Your task to perform on an android device: toggle pop-ups in chrome Image 0: 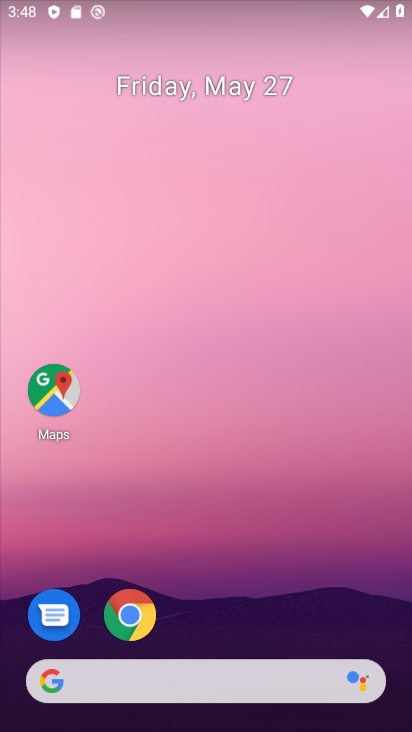
Step 0: click (136, 624)
Your task to perform on an android device: toggle pop-ups in chrome Image 1: 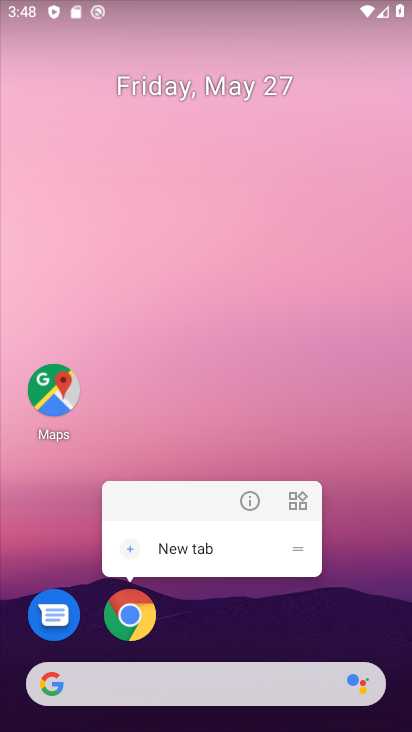
Step 1: click (136, 624)
Your task to perform on an android device: toggle pop-ups in chrome Image 2: 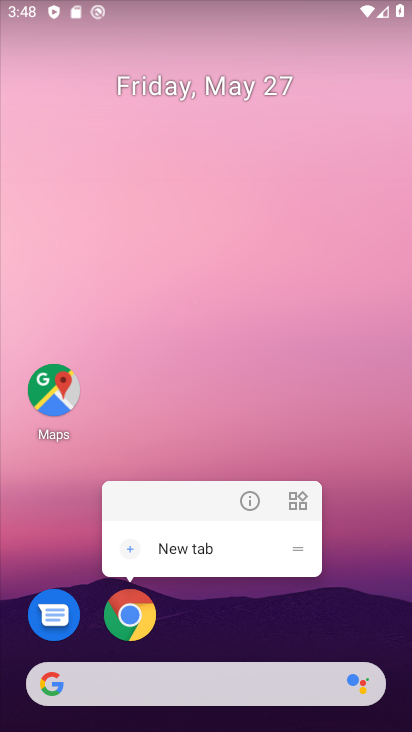
Step 2: click (136, 622)
Your task to perform on an android device: toggle pop-ups in chrome Image 3: 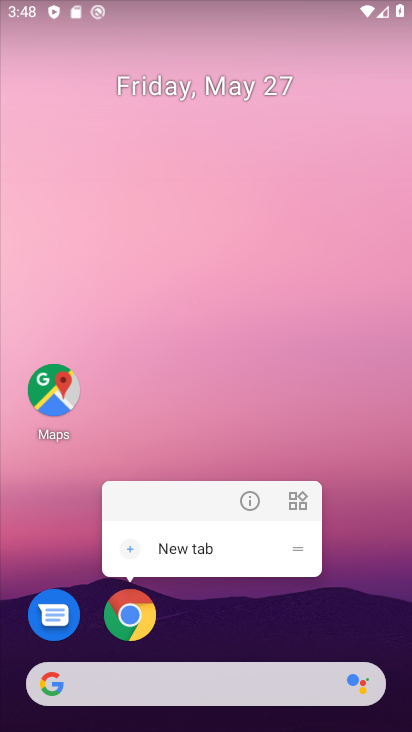
Step 3: click (127, 611)
Your task to perform on an android device: toggle pop-ups in chrome Image 4: 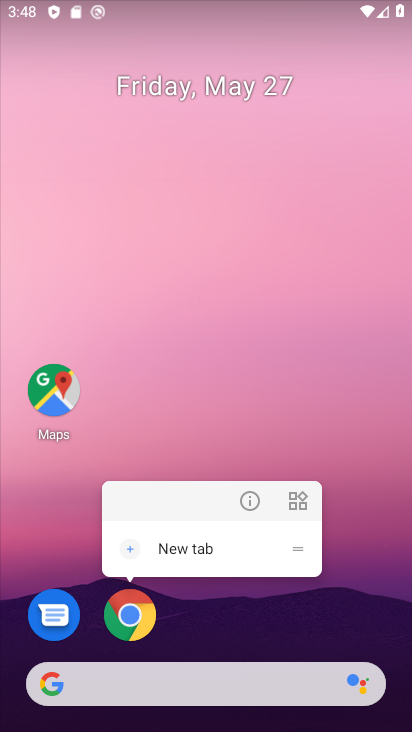
Step 4: click (119, 621)
Your task to perform on an android device: toggle pop-ups in chrome Image 5: 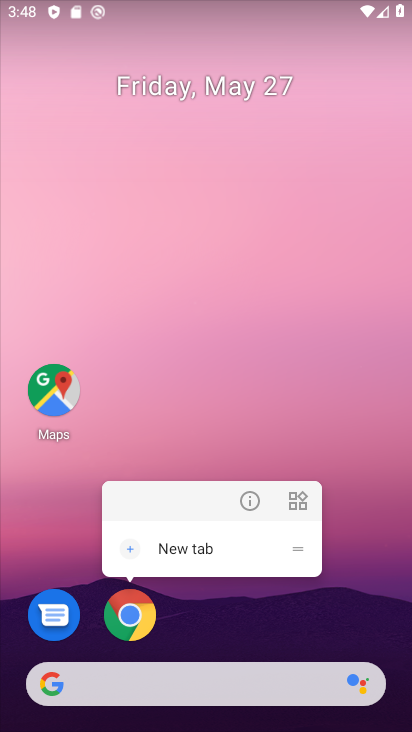
Step 5: click (127, 612)
Your task to perform on an android device: toggle pop-ups in chrome Image 6: 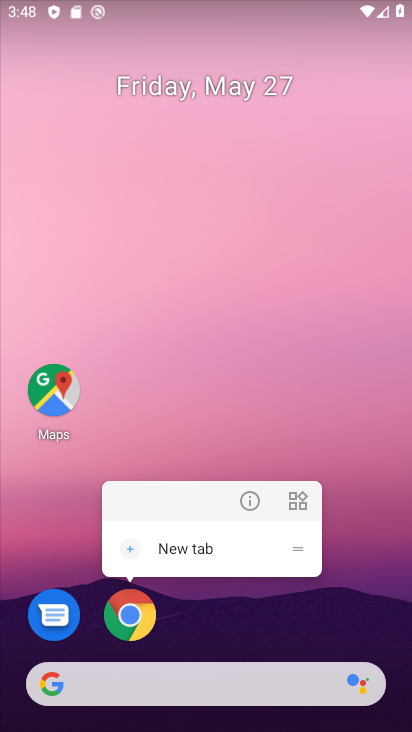
Step 6: click (132, 611)
Your task to perform on an android device: toggle pop-ups in chrome Image 7: 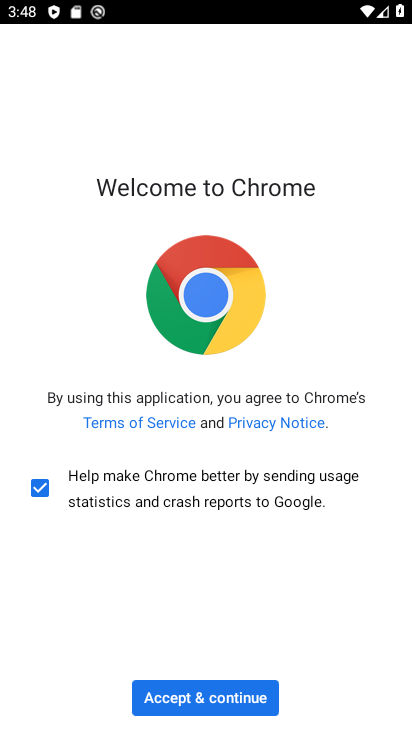
Step 7: click (235, 689)
Your task to perform on an android device: toggle pop-ups in chrome Image 8: 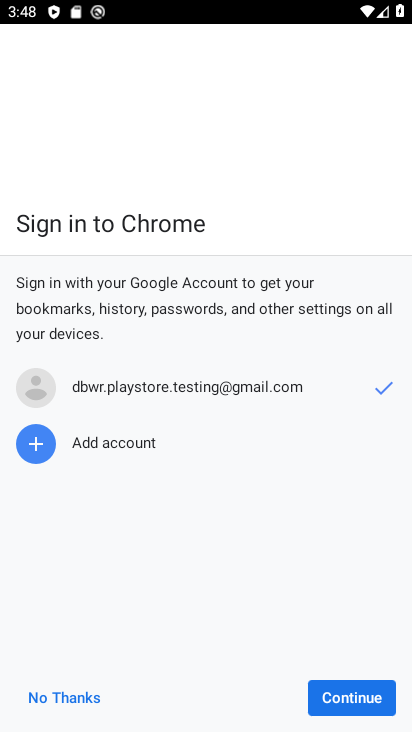
Step 8: click (378, 708)
Your task to perform on an android device: toggle pop-ups in chrome Image 9: 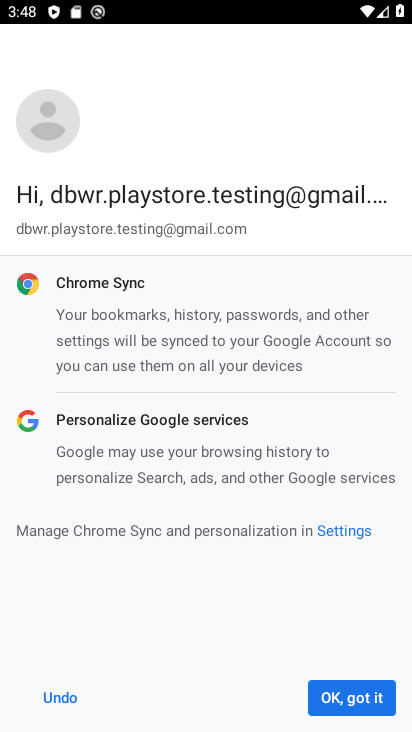
Step 9: click (360, 708)
Your task to perform on an android device: toggle pop-ups in chrome Image 10: 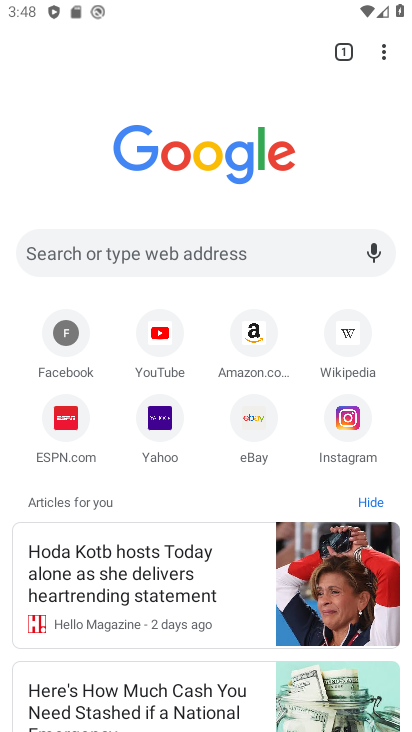
Step 10: drag from (396, 51) to (286, 429)
Your task to perform on an android device: toggle pop-ups in chrome Image 11: 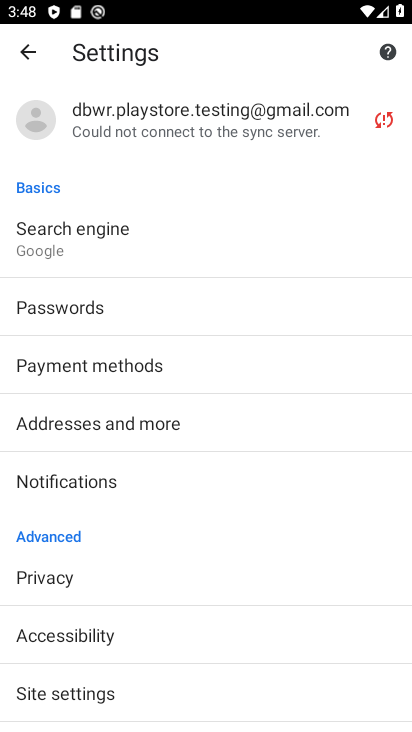
Step 11: drag from (132, 641) to (219, 414)
Your task to perform on an android device: toggle pop-ups in chrome Image 12: 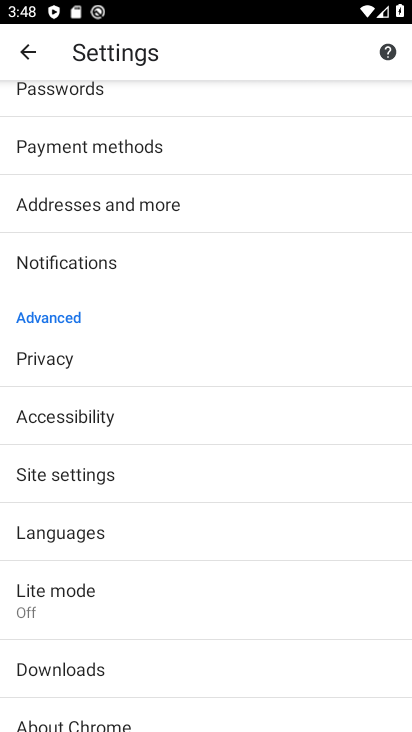
Step 12: click (109, 469)
Your task to perform on an android device: toggle pop-ups in chrome Image 13: 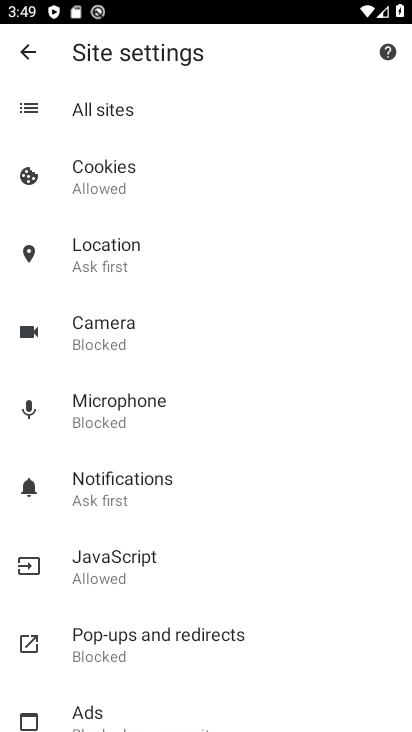
Step 13: click (170, 638)
Your task to perform on an android device: toggle pop-ups in chrome Image 14: 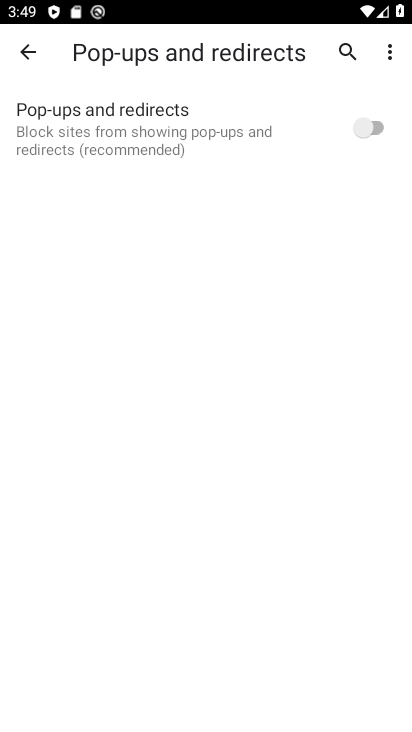
Step 14: click (391, 122)
Your task to perform on an android device: toggle pop-ups in chrome Image 15: 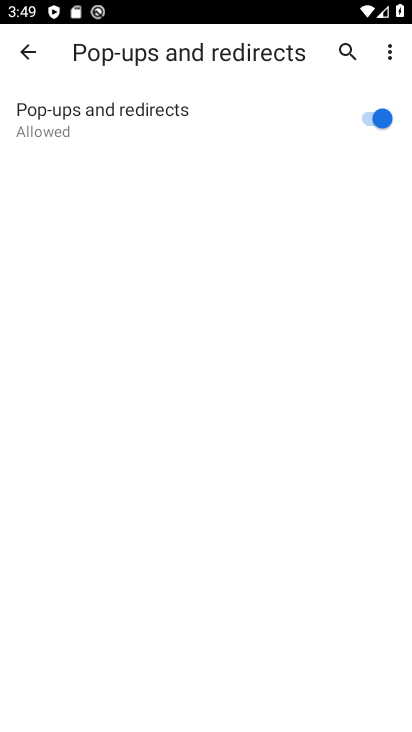
Step 15: task complete